Your task to perform on an android device: Check the news Image 0: 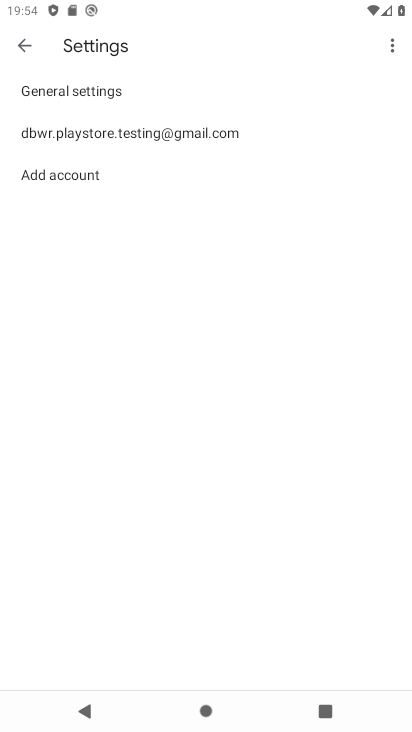
Step 0: click (336, 398)
Your task to perform on an android device: Check the news Image 1: 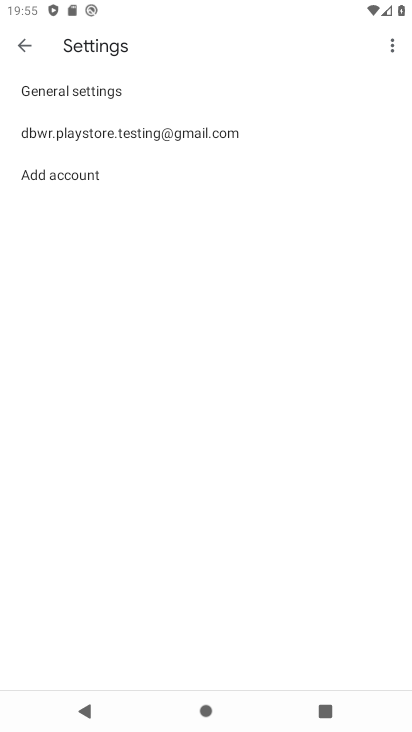
Step 1: drag from (304, 603) to (328, 166)
Your task to perform on an android device: Check the news Image 2: 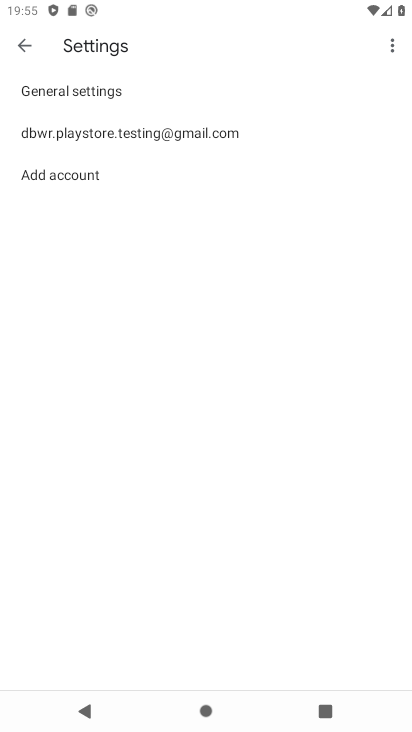
Step 2: press home button
Your task to perform on an android device: Check the news Image 3: 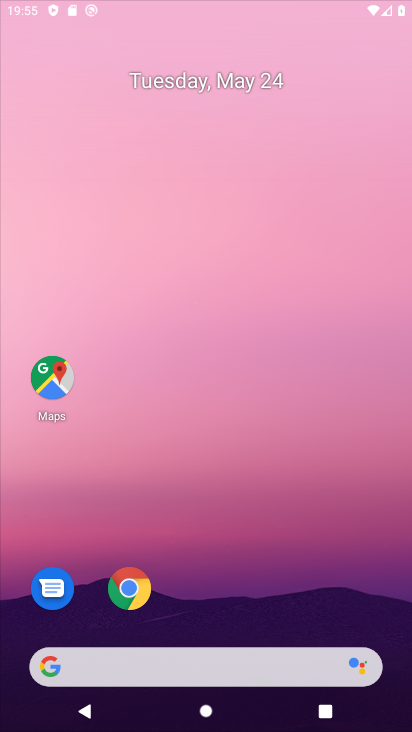
Step 3: drag from (188, 596) to (241, 362)
Your task to perform on an android device: Check the news Image 4: 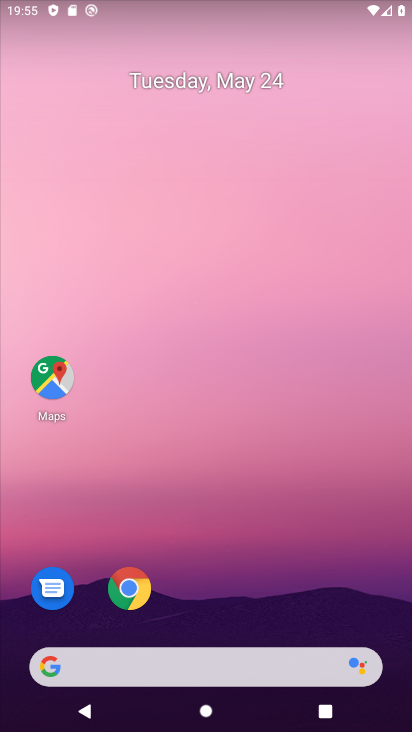
Step 4: drag from (186, 588) to (321, 42)
Your task to perform on an android device: Check the news Image 5: 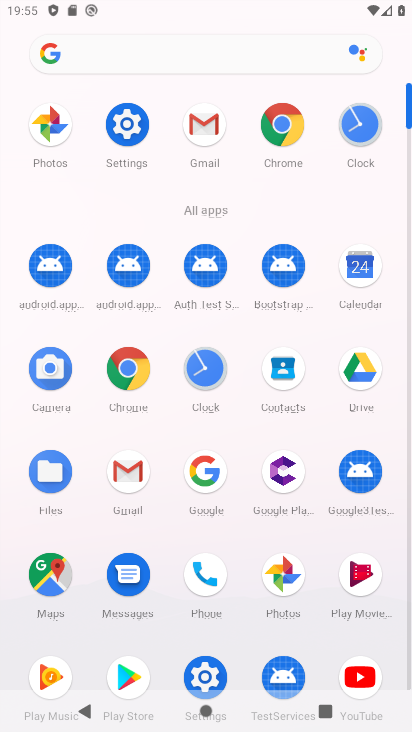
Step 5: click (164, 51)
Your task to perform on an android device: Check the news Image 6: 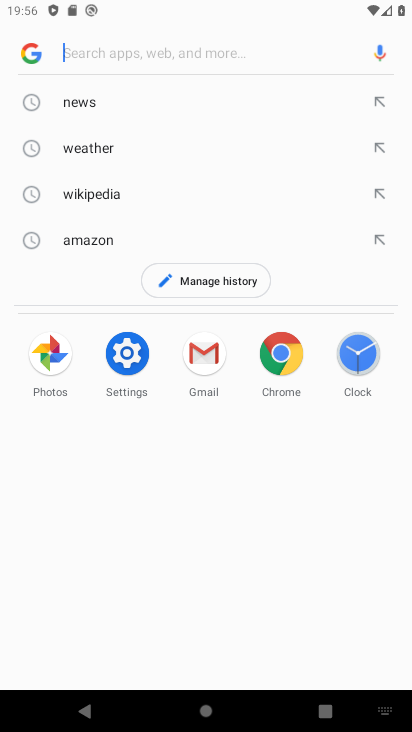
Step 6: type "news"
Your task to perform on an android device: Check the news Image 7: 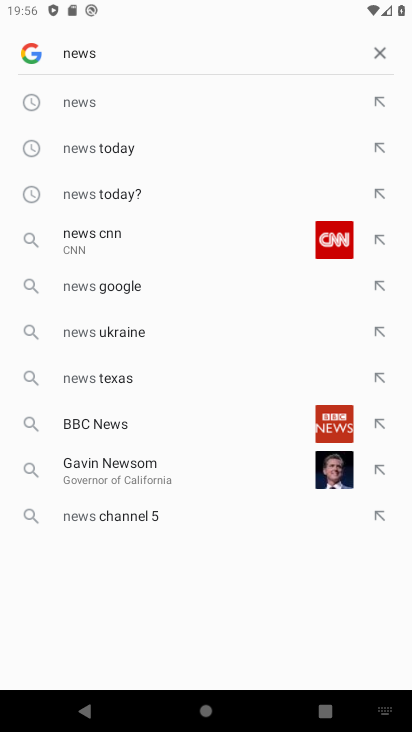
Step 7: click (104, 103)
Your task to perform on an android device: Check the news Image 8: 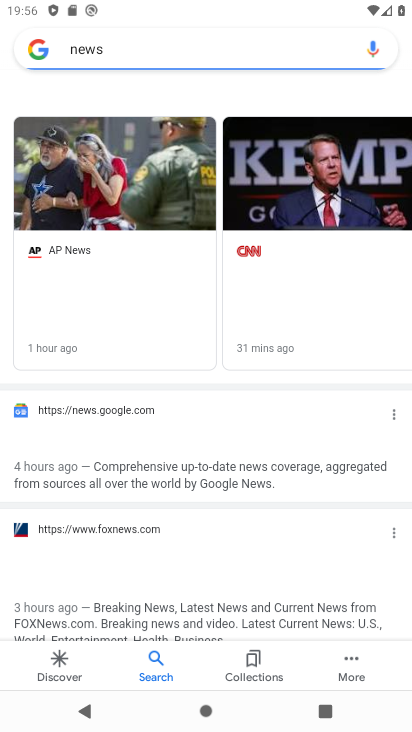
Step 8: task complete